Your task to perform on an android device: Search for seafood restaurants on Google Maps Image 0: 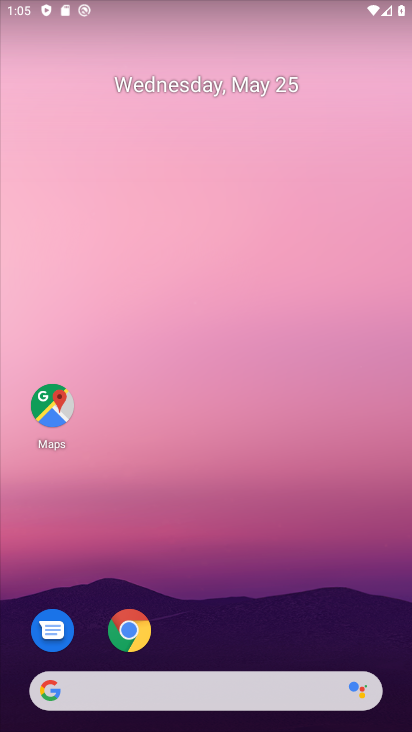
Step 0: drag from (292, 681) to (140, 154)
Your task to perform on an android device: Search for seafood restaurants on Google Maps Image 1: 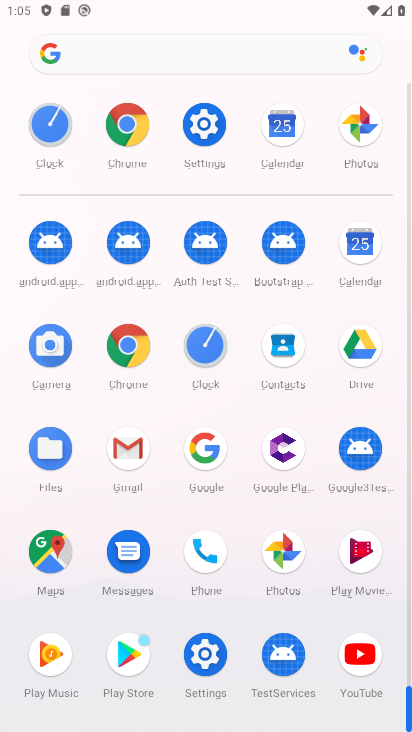
Step 1: drag from (280, 593) to (144, 97)
Your task to perform on an android device: Search for seafood restaurants on Google Maps Image 2: 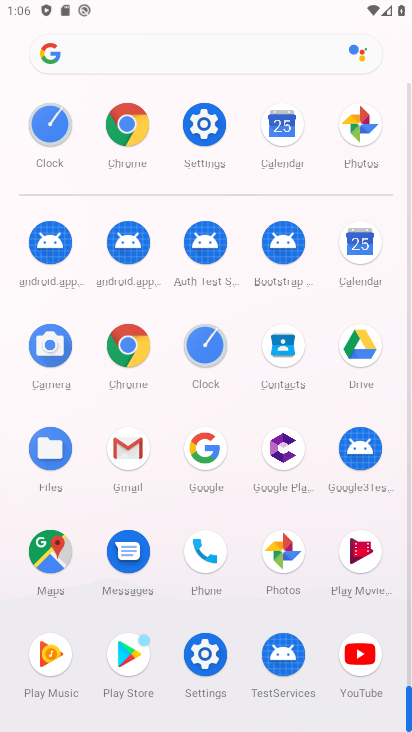
Step 2: click (52, 541)
Your task to perform on an android device: Search for seafood restaurants on Google Maps Image 3: 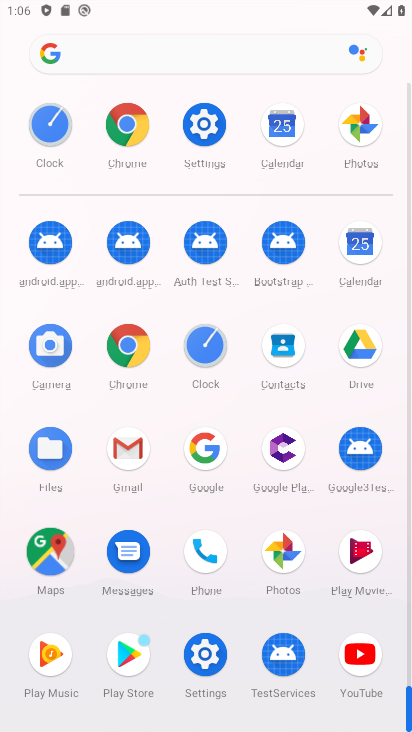
Step 3: click (53, 541)
Your task to perform on an android device: Search for seafood restaurants on Google Maps Image 4: 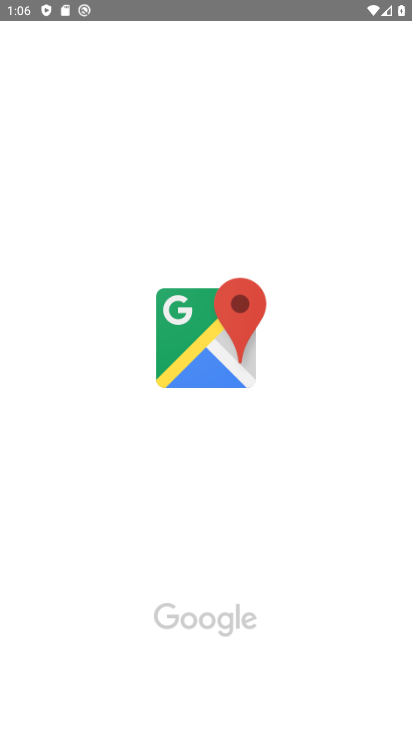
Step 4: click (56, 541)
Your task to perform on an android device: Search for seafood restaurants on Google Maps Image 5: 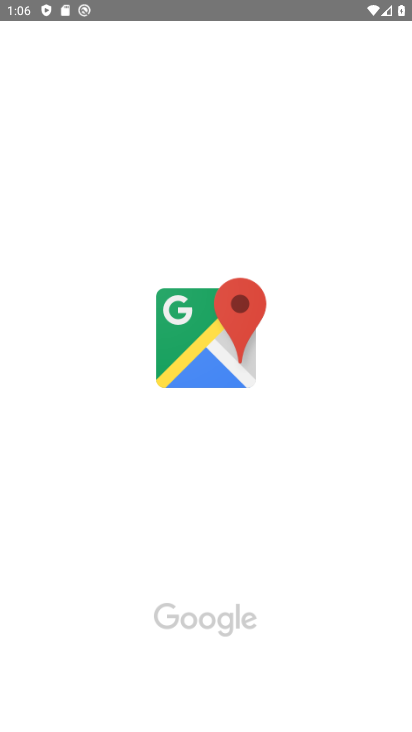
Step 5: click (58, 540)
Your task to perform on an android device: Search for seafood restaurants on Google Maps Image 6: 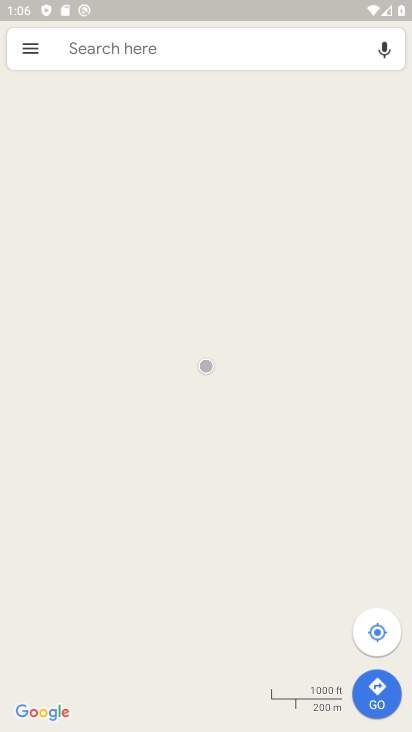
Step 6: click (81, 47)
Your task to perform on an android device: Search for seafood restaurants on Google Maps Image 7: 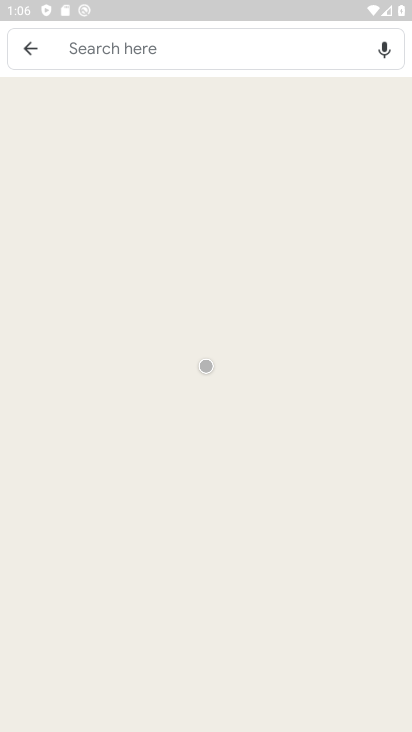
Step 7: click (91, 41)
Your task to perform on an android device: Search for seafood restaurants on Google Maps Image 8: 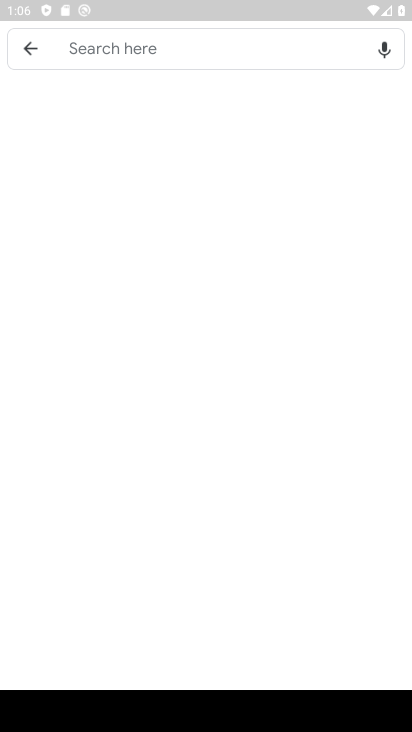
Step 8: click (91, 41)
Your task to perform on an android device: Search for seafood restaurants on Google Maps Image 9: 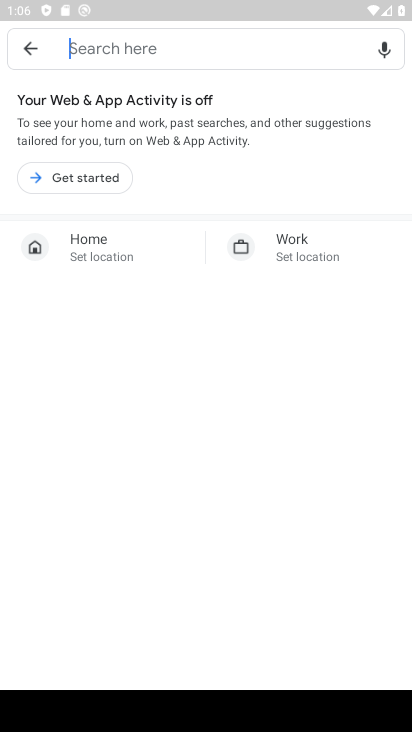
Step 9: click (91, 41)
Your task to perform on an android device: Search for seafood restaurants on Google Maps Image 10: 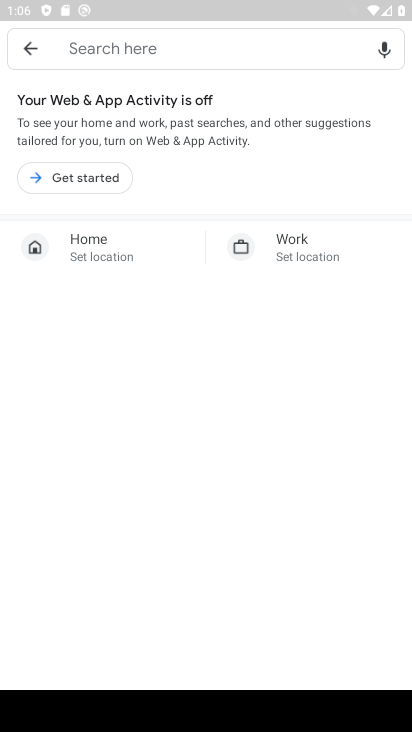
Step 10: click (90, 42)
Your task to perform on an android device: Search for seafood restaurants on Google Maps Image 11: 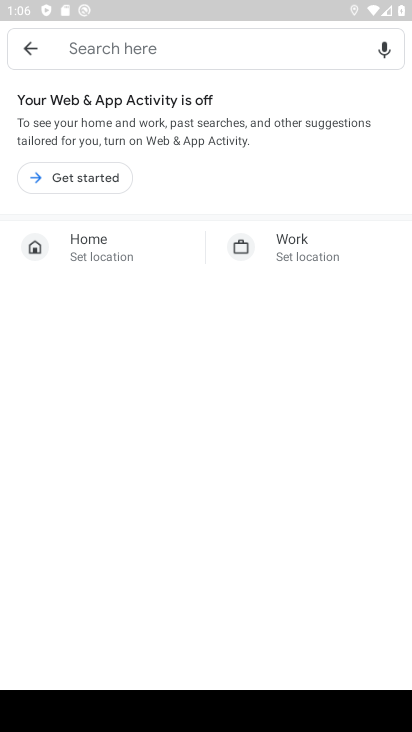
Step 11: click (90, 42)
Your task to perform on an android device: Search for seafood restaurants on Google Maps Image 12: 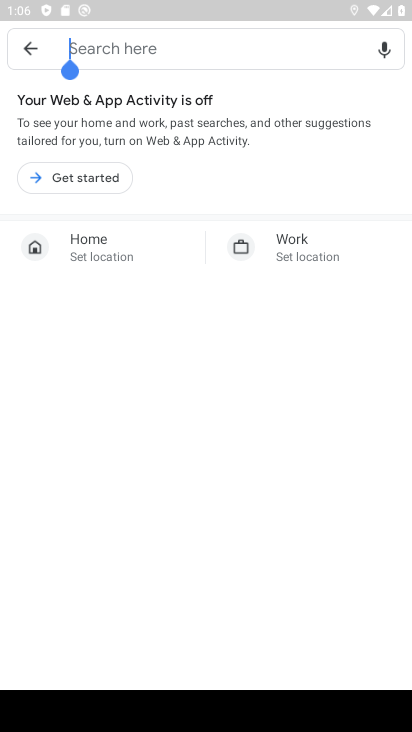
Step 12: click (81, 43)
Your task to perform on an android device: Search for seafood restaurants on Google Maps Image 13: 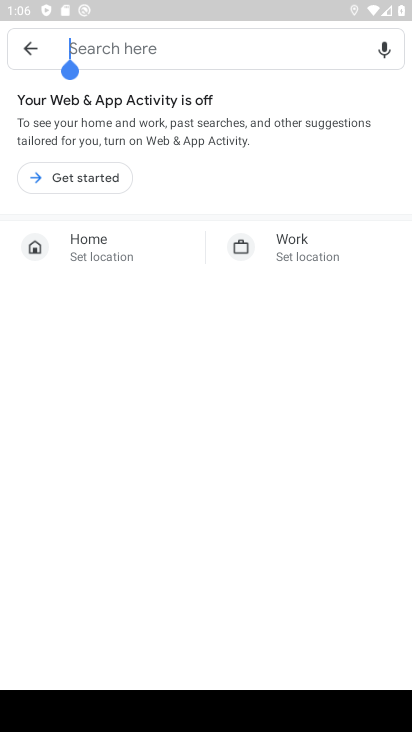
Step 13: click (75, 41)
Your task to perform on an android device: Search for seafood restaurants on Google Maps Image 14: 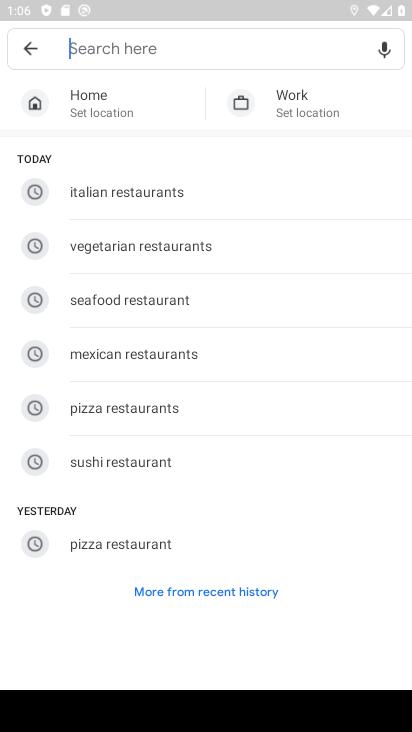
Step 14: click (108, 300)
Your task to perform on an android device: Search for seafood restaurants on Google Maps Image 15: 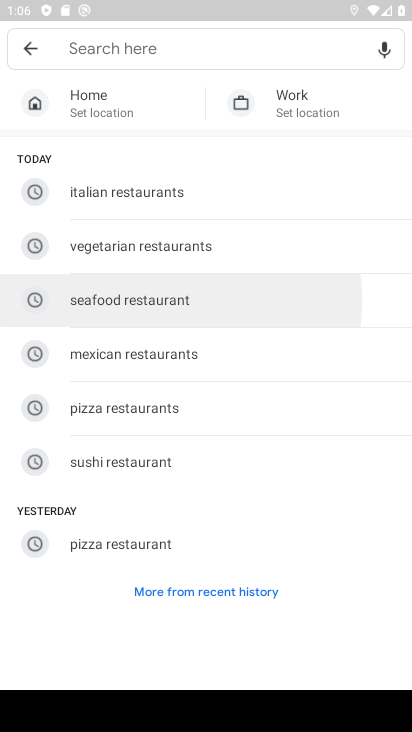
Step 15: click (115, 295)
Your task to perform on an android device: Search for seafood restaurants on Google Maps Image 16: 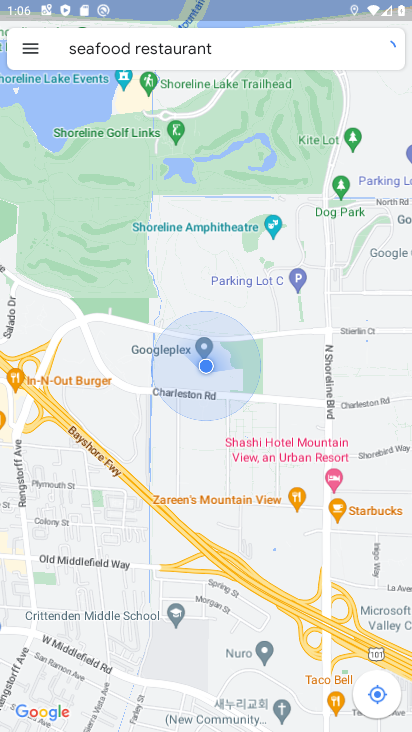
Step 16: task complete